Your task to perform on an android device: manage bookmarks in the chrome app Image 0: 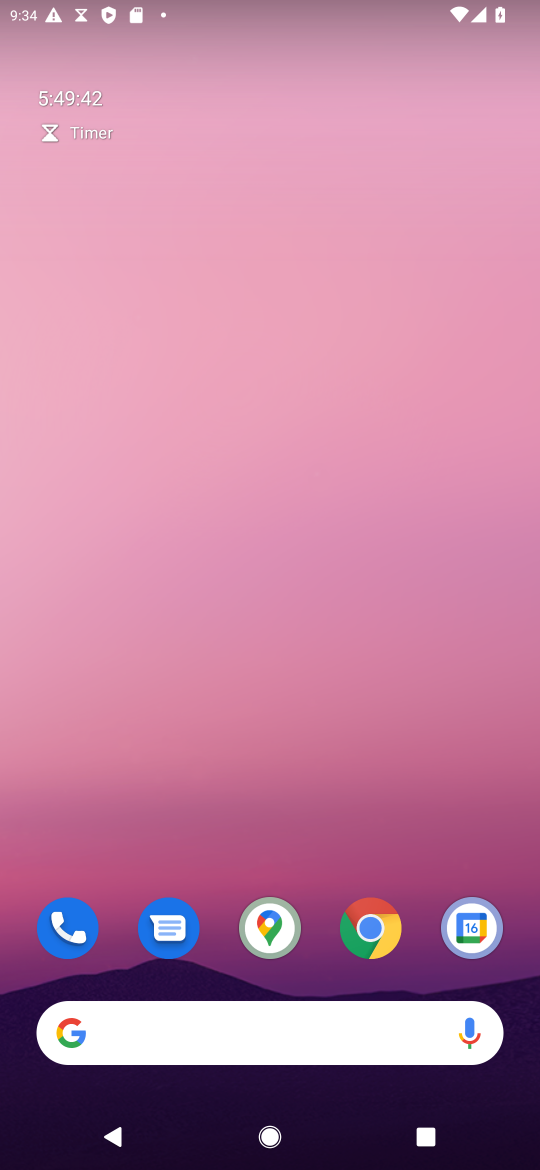
Step 0: press home button
Your task to perform on an android device: manage bookmarks in the chrome app Image 1: 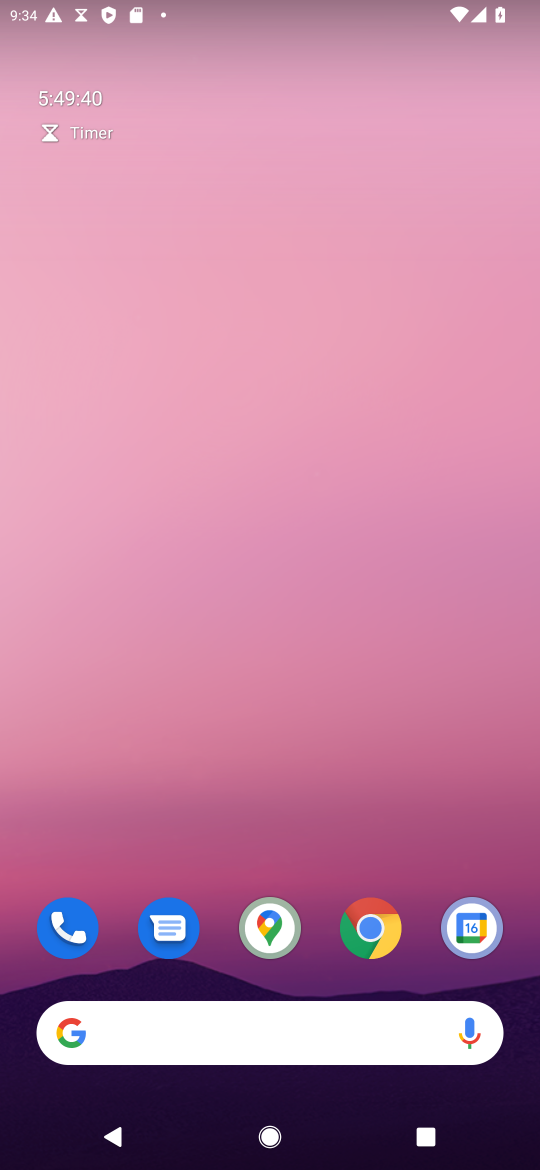
Step 1: click (379, 946)
Your task to perform on an android device: manage bookmarks in the chrome app Image 2: 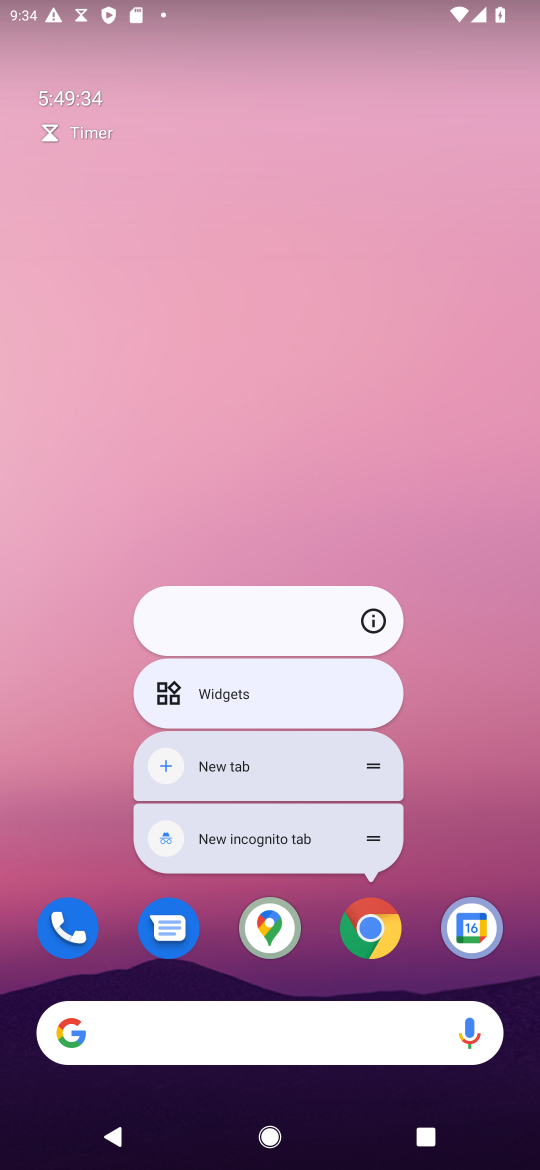
Step 2: click (379, 946)
Your task to perform on an android device: manage bookmarks in the chrome app Image 3: 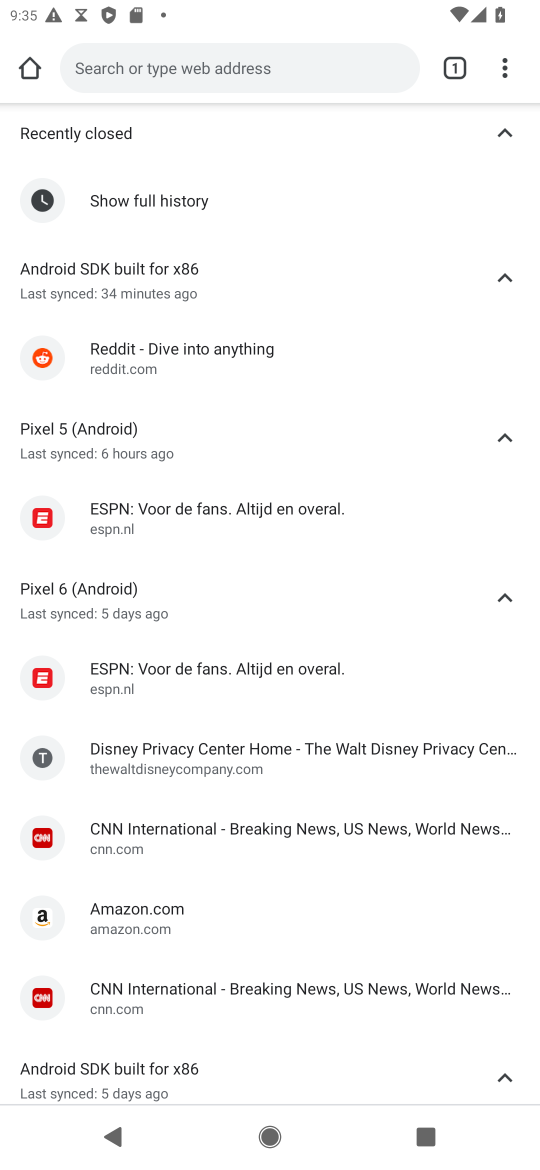
Step 3: drag from (499, 70) to (311, 454)
Your task to perform on an android device: manage bookmarks in the chrome app Image 4: 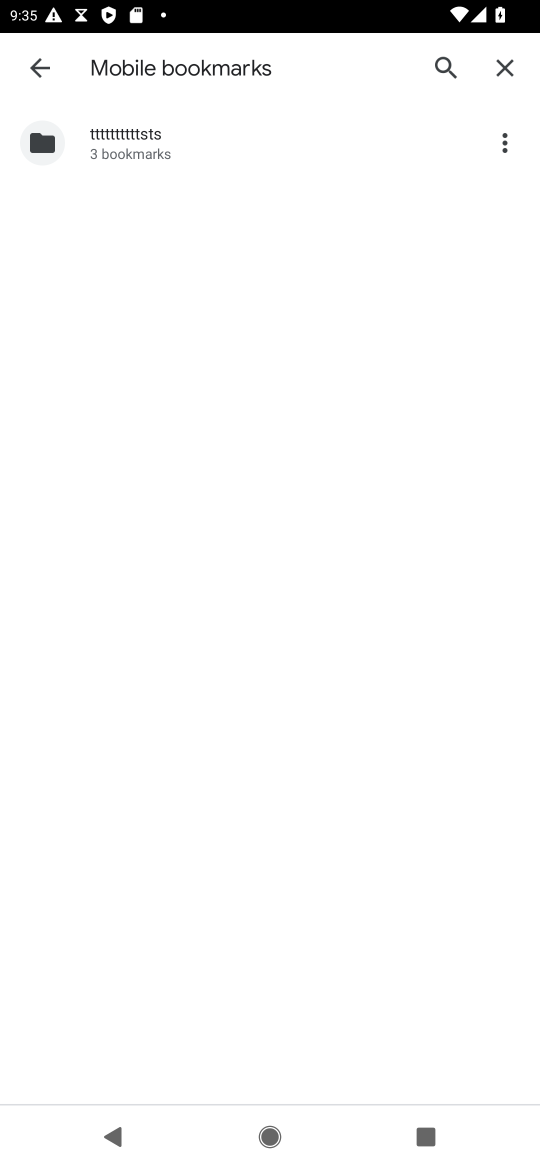
Step 4: click (500, 133)
Your task to perform on an android device: manage bookmarks in the chrome app Image 5: 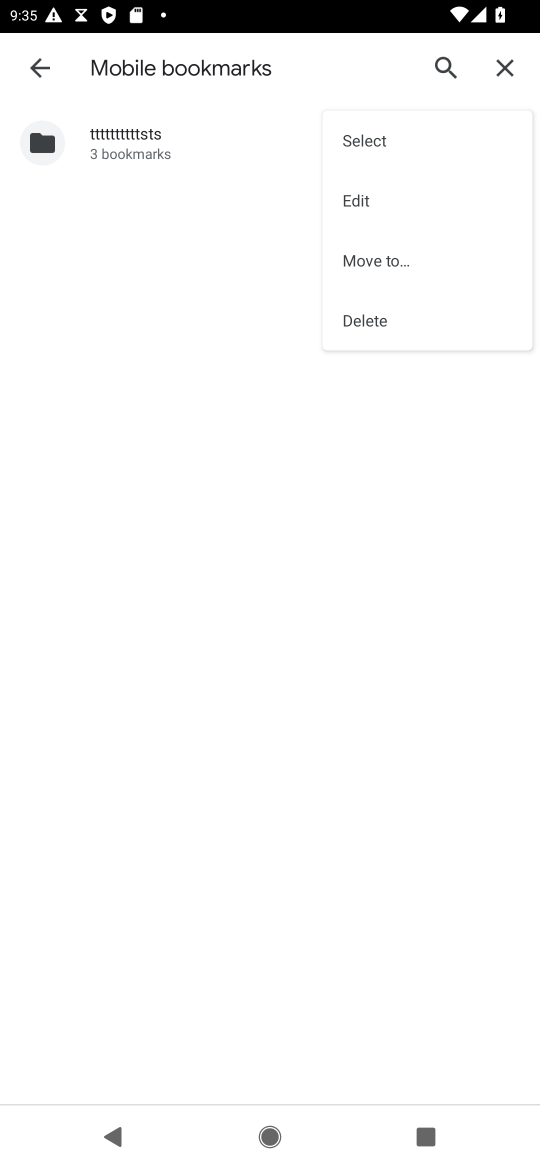
Step 5: click (420, 196)
Your task to perform on an android device: manage bookmarks in the chrome app Image 6: 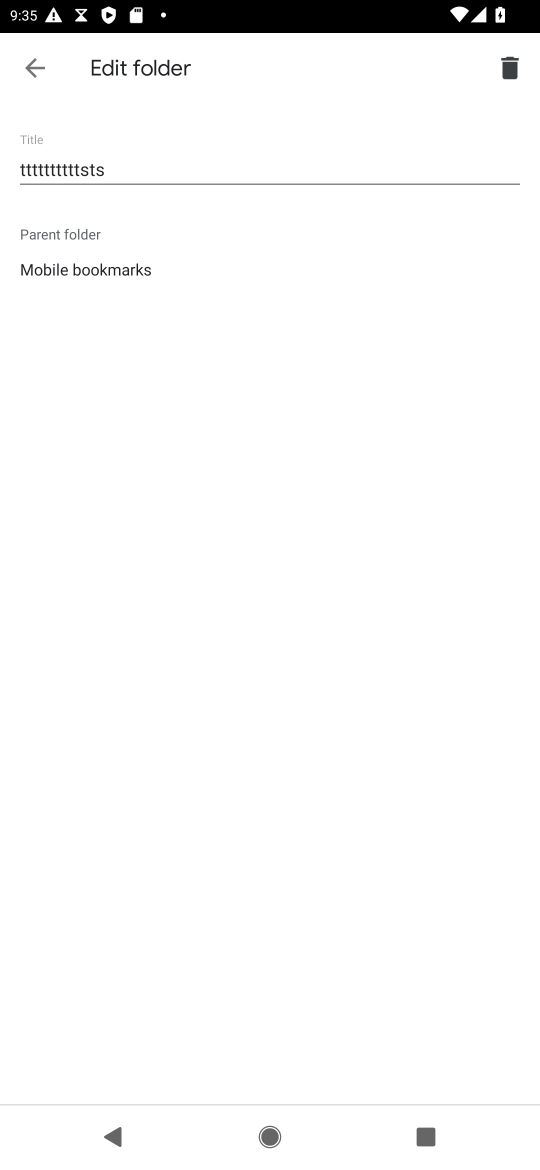
Step 6: click (34, 69)
Your task to perform on an android device: manage bookmarks in the chrome app Image 7: 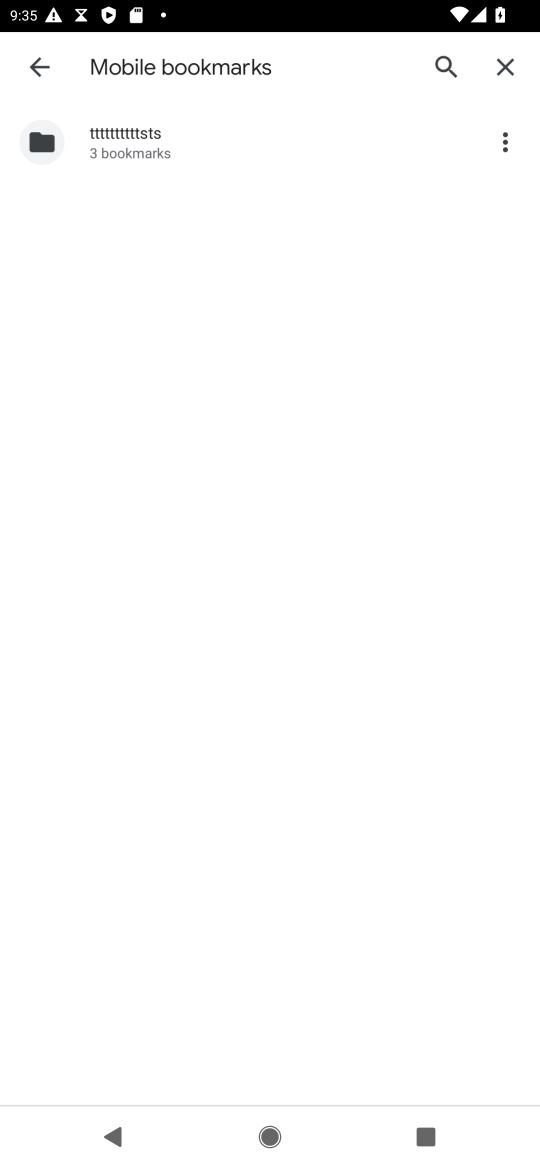
Step 7: task complete